Your task to perform on an android device: turn off data saver in the chrome app Image 0: 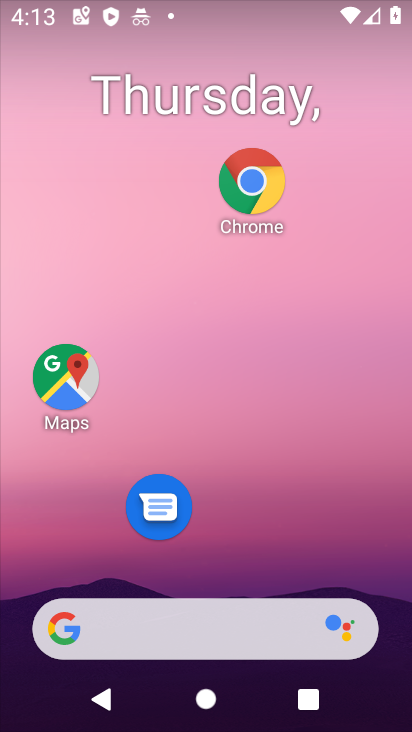
Step 0: drag from (267, 560) to (238, 285)
Your task to perform on an android device: turn off data saver in the chrome app Image 1: 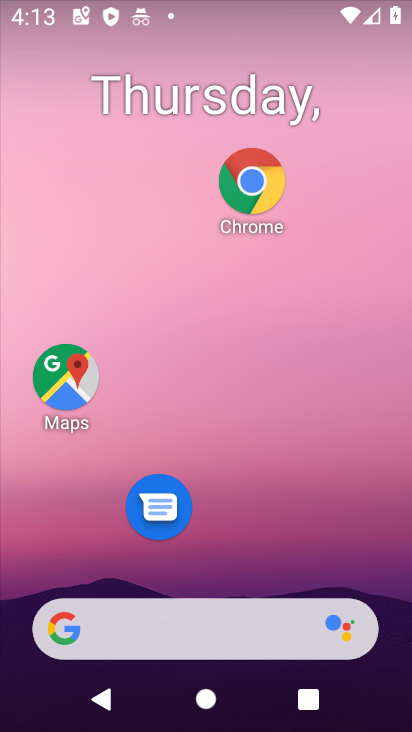
Step 1: drag from (268, 692) to (223, 283)
Your task to perform on an android device: turn off data saver in the chrome app Image 2: 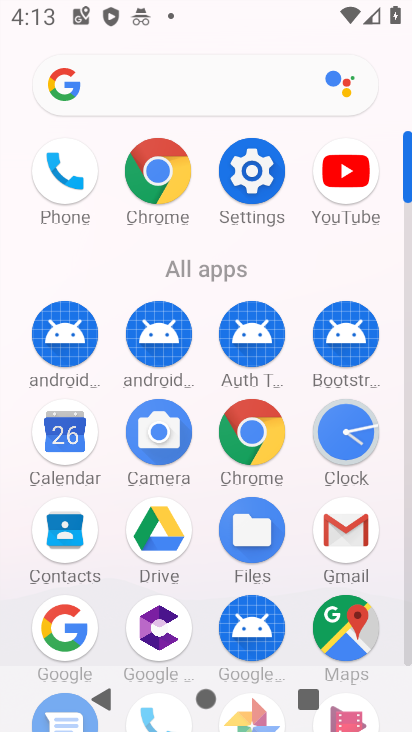
Step 2: click (154, 416)
Your task to perform on an android device: turn off data saver in the chrome app Image 3: 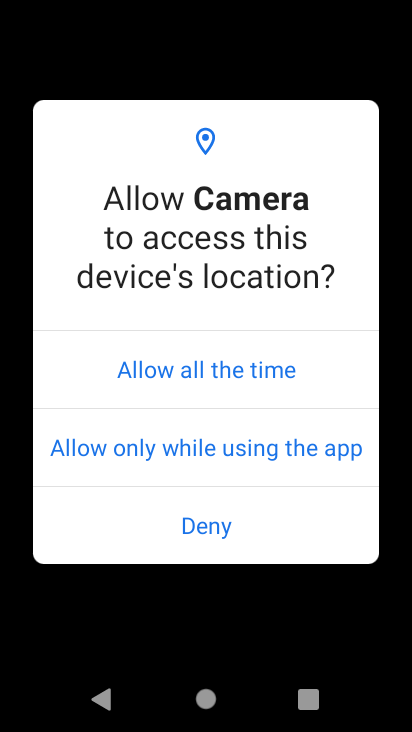
Step 3: click (210, 372)
Your task to perform on an android device: turn off data saver in the chrome app Image 4: 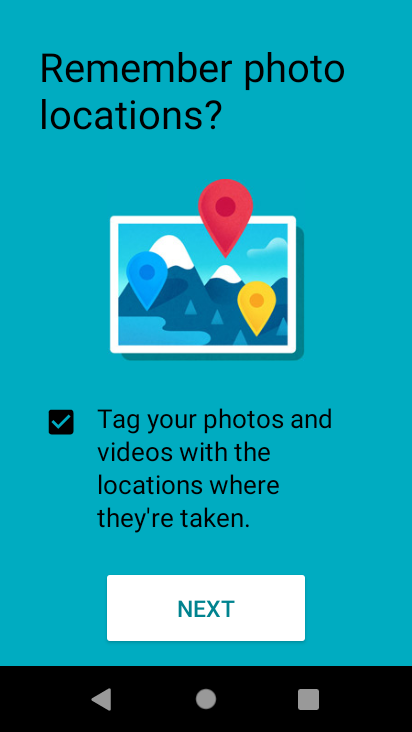
Step 4: task complete